Your task to perform on an android device: toggle location history Image 0: 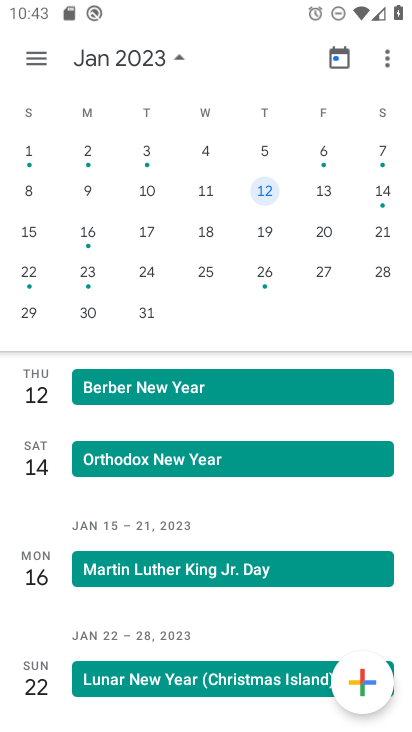
Step 0: press home button
Your task to perform on an android device: toggle location history Image 1: 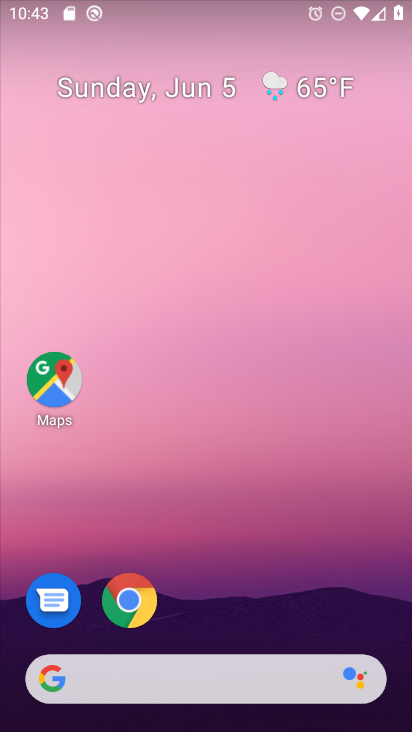
Step 1: drag from (388, 615) to (272, 34)
Your task to perform on an android device: toggle location history Image 2: 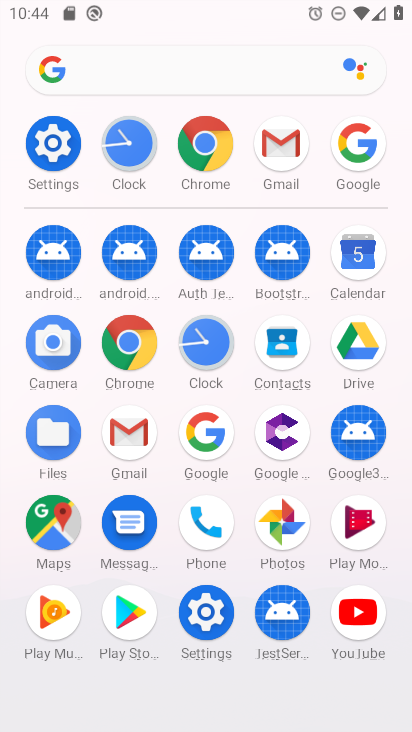
Step 2: click (211, 609)
Your task to perform on an android device: toggle location history Image 3: 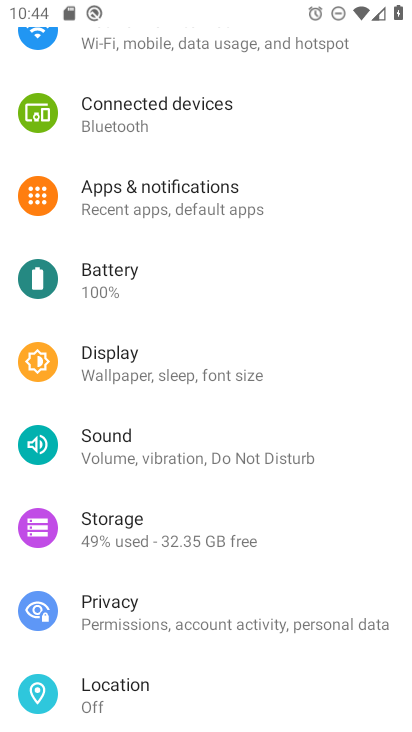
Step 3: click (113, 685)
Your task to perform on an android device: toggle location history Image 4: 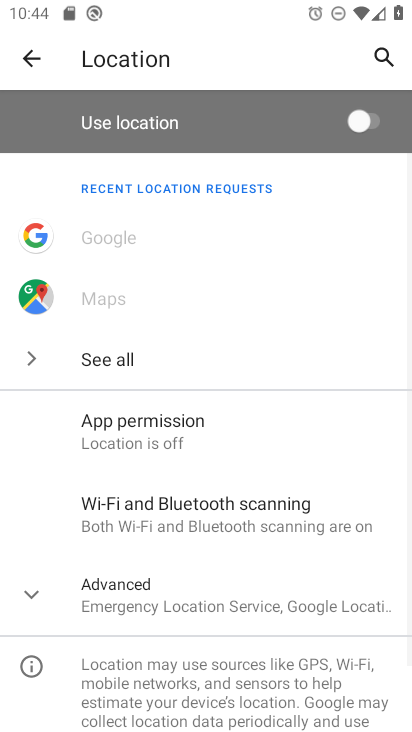
Step 4: click (206, 619)
Your task to perform on an android device: toggle location history Image 5: 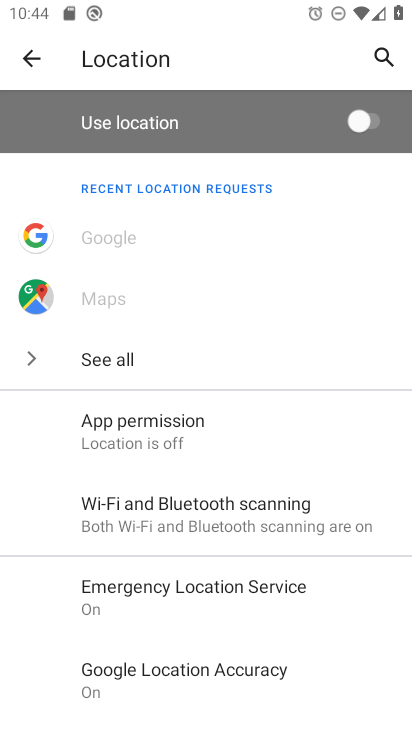
Step 5: drag from (204, 678) to (228, 257)
Your task to perform on an android device: toggle location history Image 6: 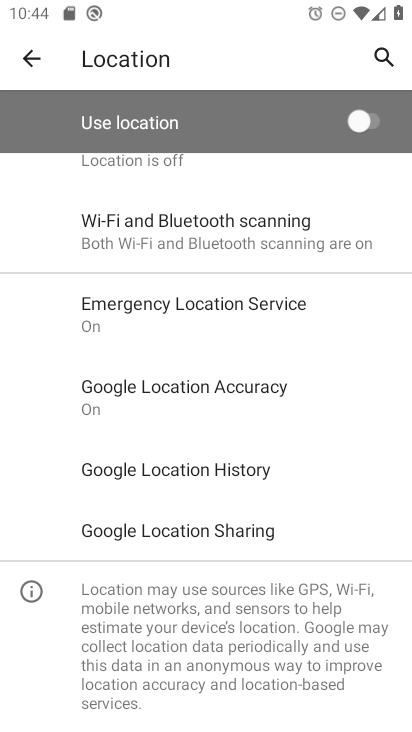
Step 6: click (161, 468)
Your task to perform on an android device: toggle location history Image 7: 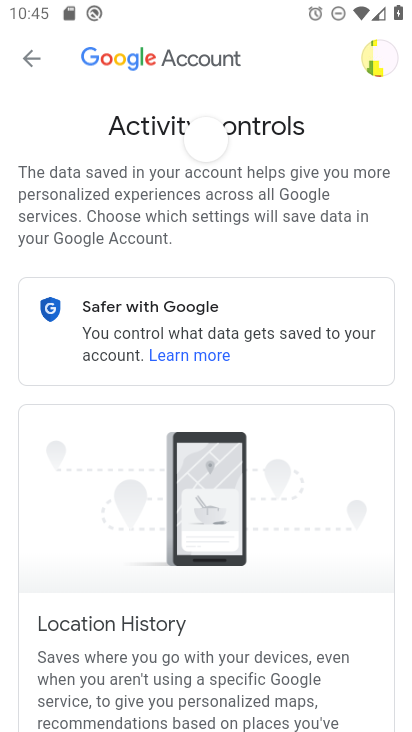
Step 7: drag from (354, 647) to (318, 113)
Your task to perform on an android device: toggle location history Image 8: 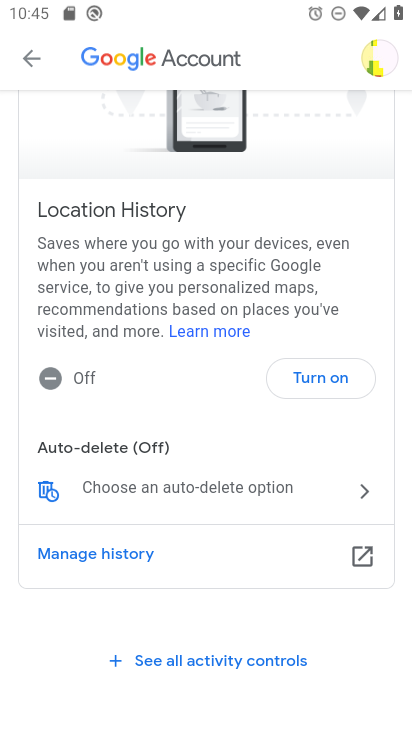
Step 8: click (321, 376)
Your task to perform on an android device: toggle location history Image 9: 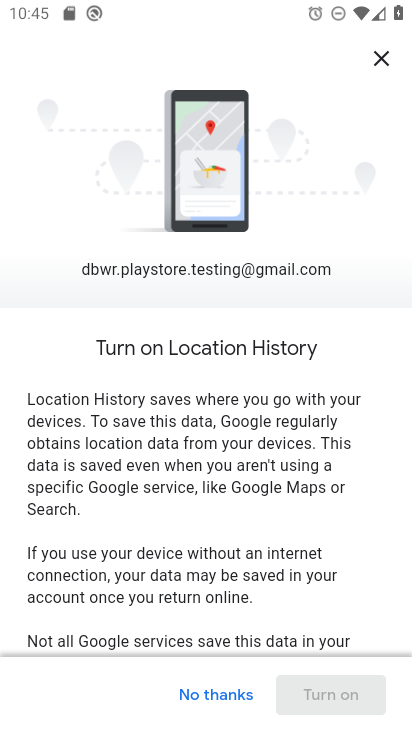
Step 9: task complete